Your task to perform on an android device: check storage Image 0: 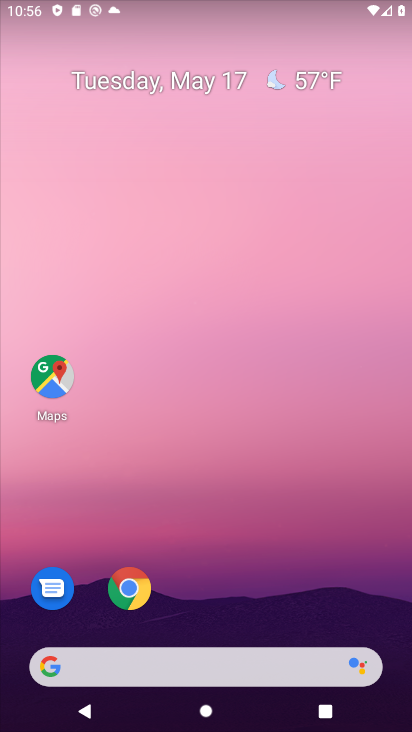
Step 0: drag from (229, 256) to (229, 134)
Your task to perform on an android device: check storage Image 1: 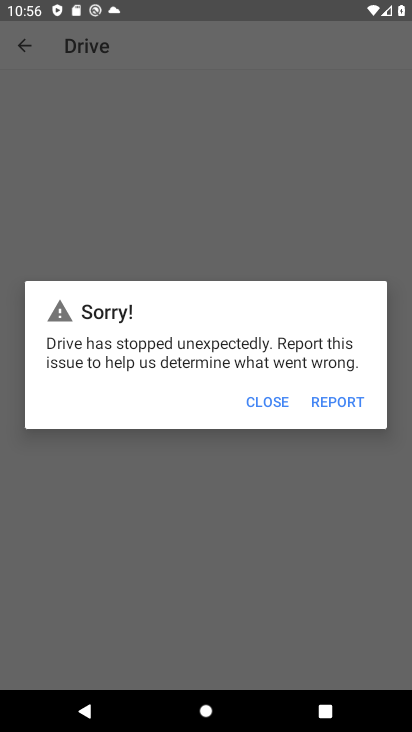
Step 1: press home button
Your task to perform on an android device: check storage Image 2: 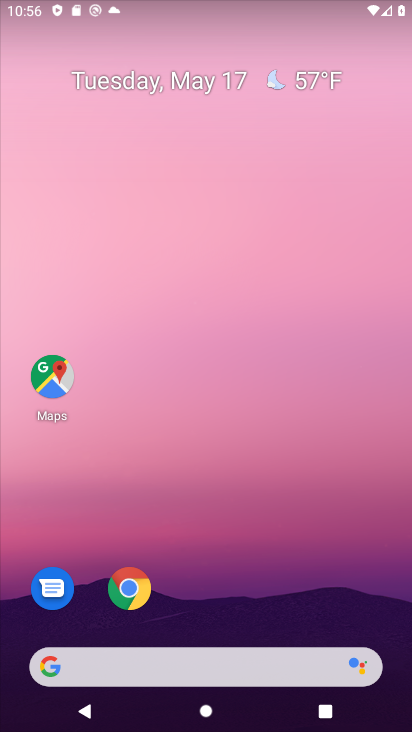
Step 2: drag from (233, 585) to (227, 131)
Your task to perform on an android device: check storage Image 3: 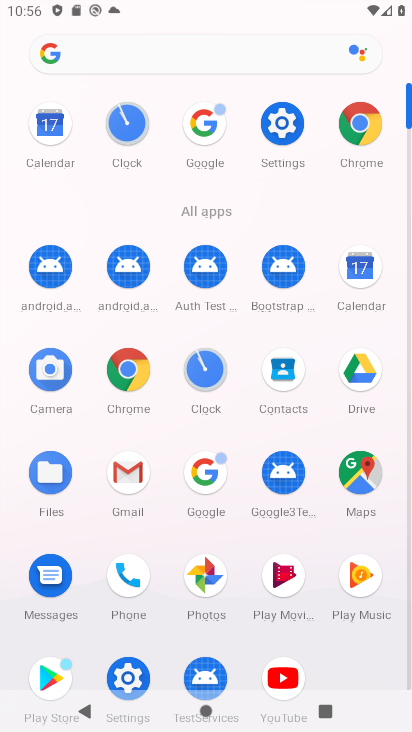
Step 3: click (267, 137)
Your task to perform on an android device: check storage Image 4: 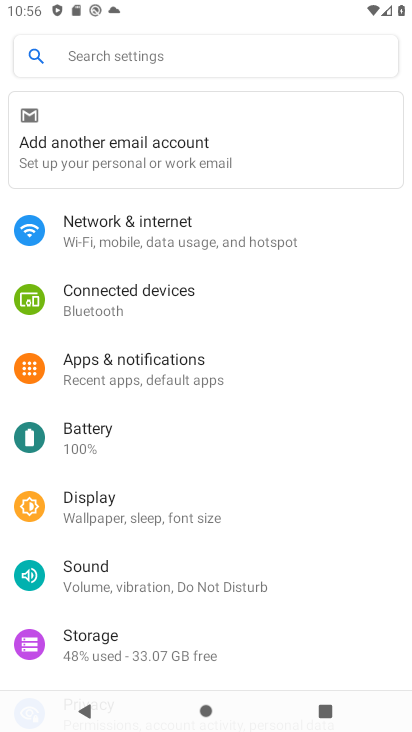
Step 4: click (154, 656)
Your task to perform on an android device: check storage Image 5: 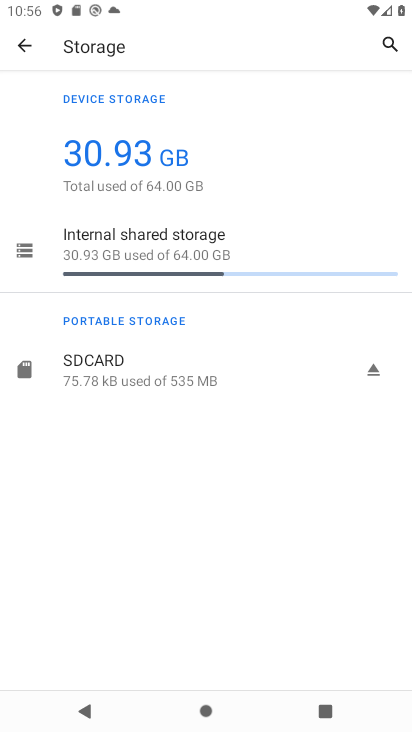
Step 5: task complete